Your task to perform on an android device: Show me the alarms in the clock app Image 0: 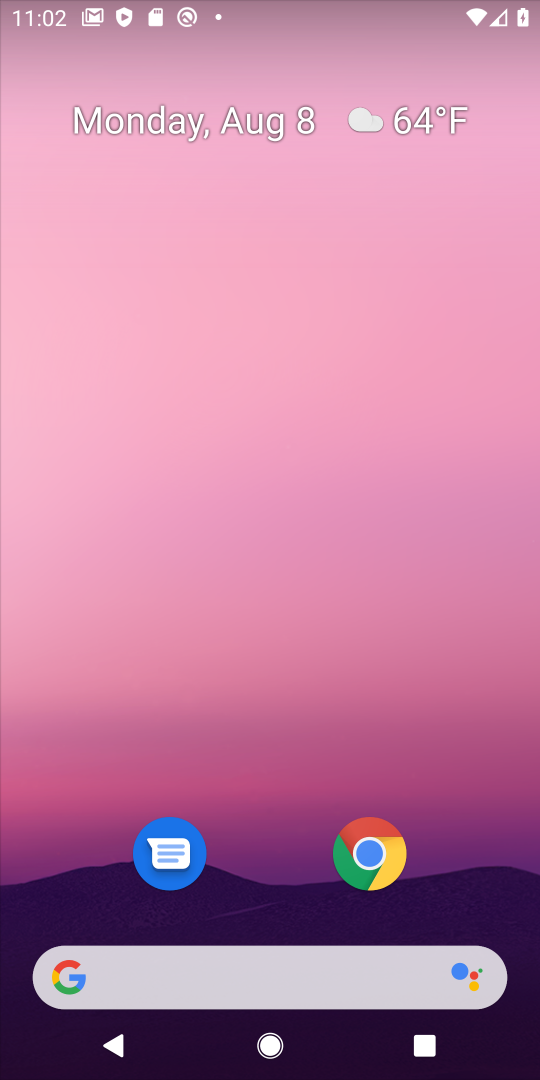
Step 0: drag from (256, 807) to (41, 0)
Your task to perform on an android device: Show me the alarms in the clock app Image 1: 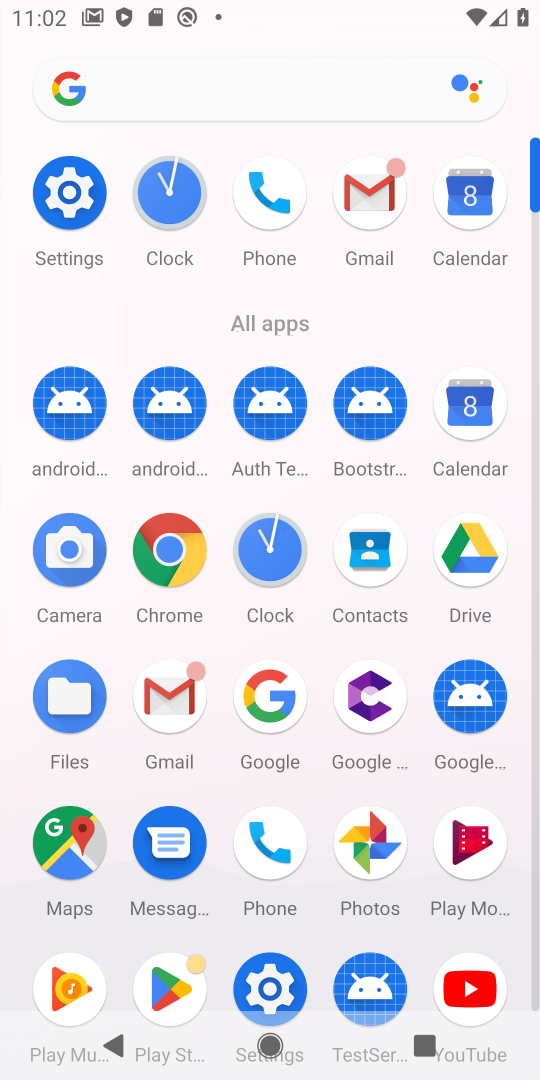
Step 1: click (168, 200)
Your task to perform on an android device: Show me the alarms in the clock app Image 2: 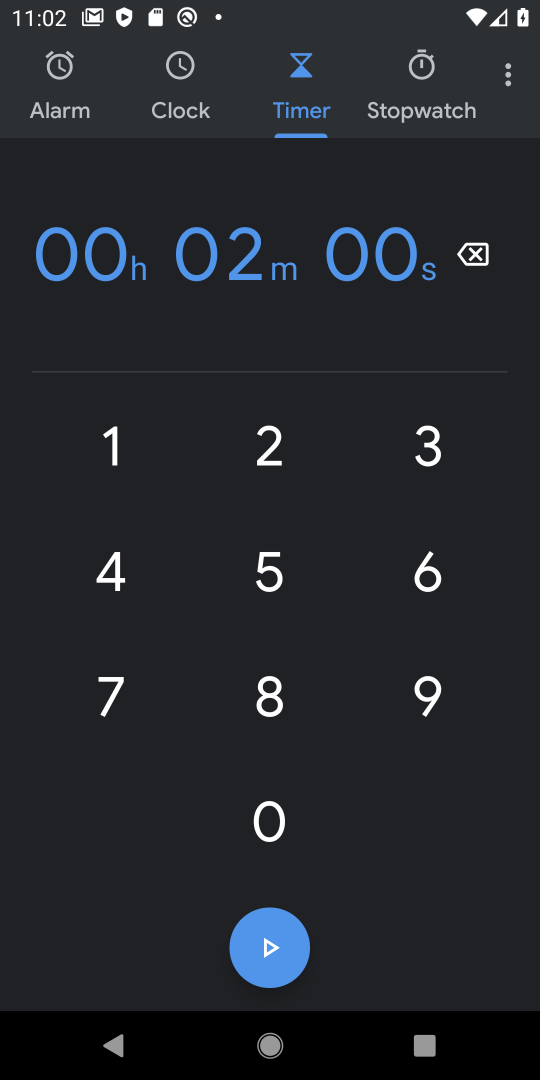
Step 2: click (67, 77)
Your task to perform on an android device: Show me the alarms in the clock app Image 3: 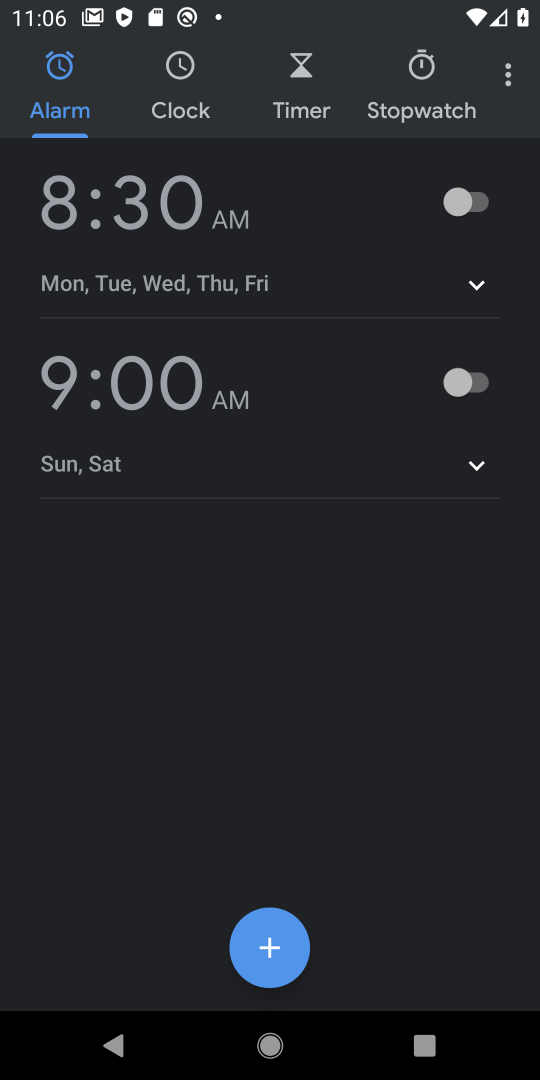
Step 3: task complete